Your task to perform on an android device: turn off location Image 0: 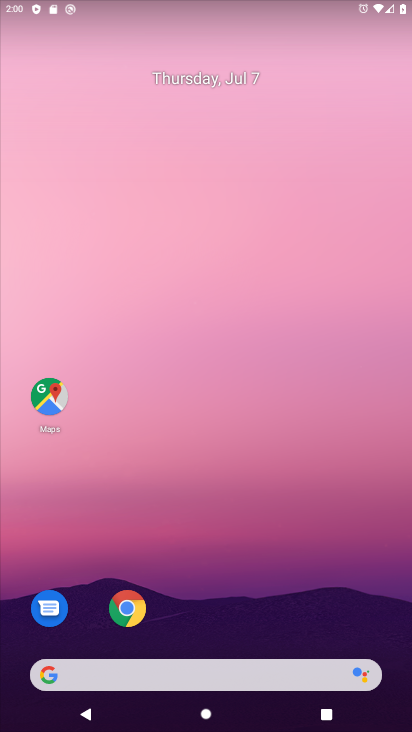
Step 0: drag from (266, 714) to (266, 192)
Your task to perform on an android device: turn off location Image 1: 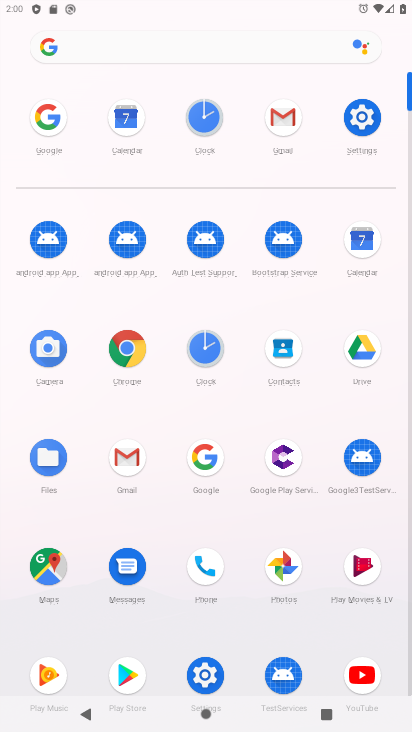
Step 1: click (365, 115)
Your task to perform on an android device: turn off location Image 2: 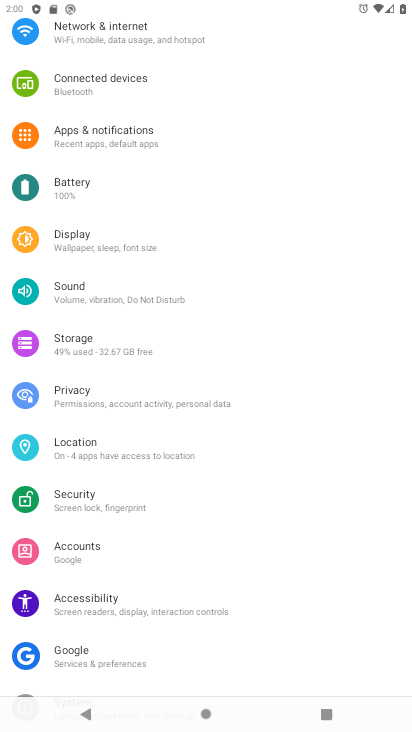
Step 2: click (86, 443)
Your task to perform on an android device: turn off location Image 3: 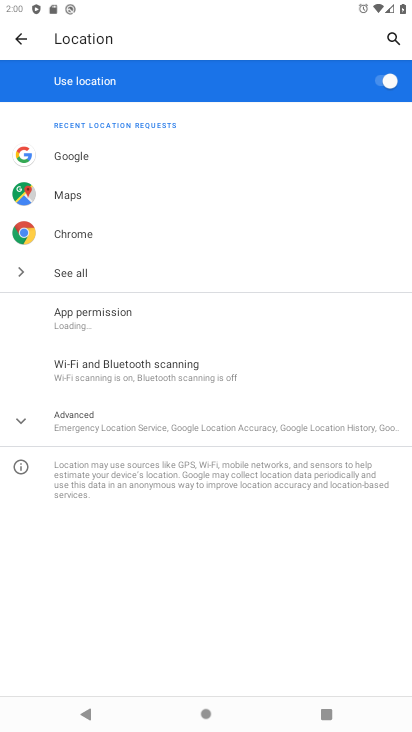
Step 3: click (378, 82)
Your task to perform on an android device: turn off location Image 4: 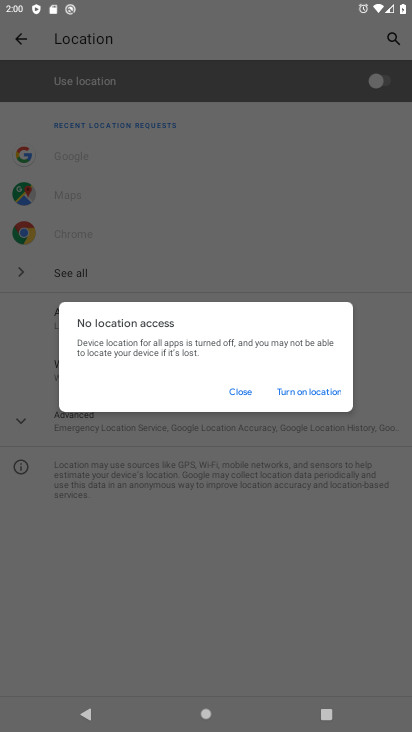
Step 4: click (239, 390)
Your task to perform on an android device: turn off location Image 5: 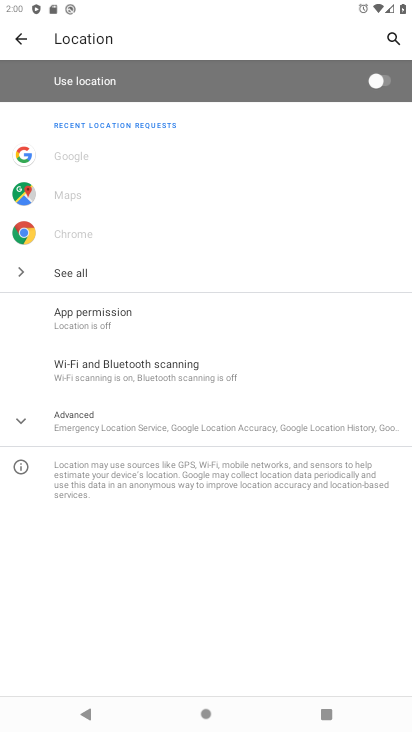
Step 5: task complete